Your task to perform on an android device: Go to privacy settings Image 0: 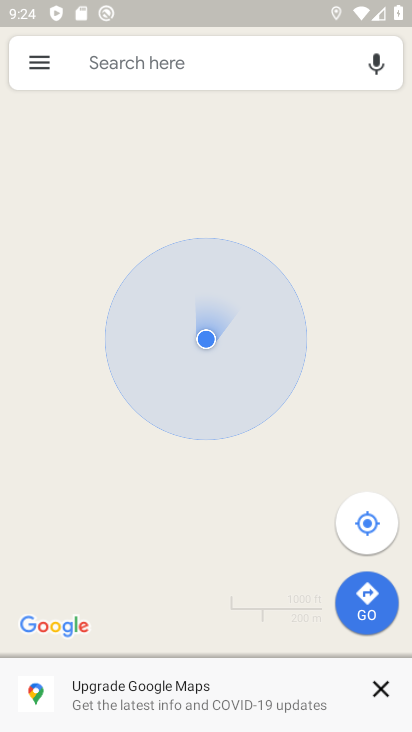
Step 0: press home button
Your task to perform on an android device: Go to privacy settings Image 1: 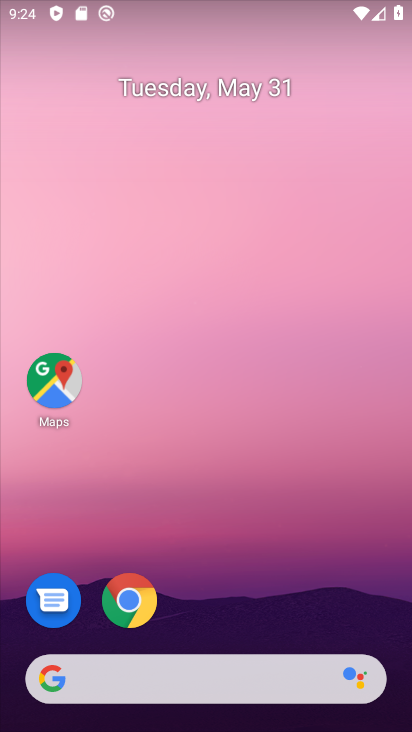
Step 1: drag from (231, 619) to (190, 156)
Your task to perform on an android device: Go to privacy settings Image 2: 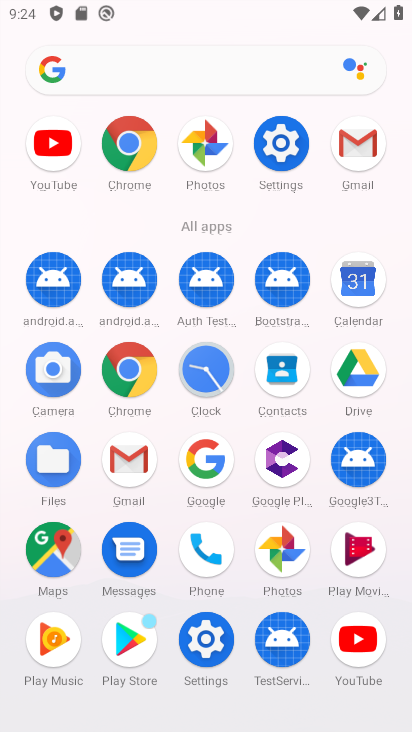
Step 2: click (278, 152)
Your task to perform on an android device: Go to privacy settings Image 3: 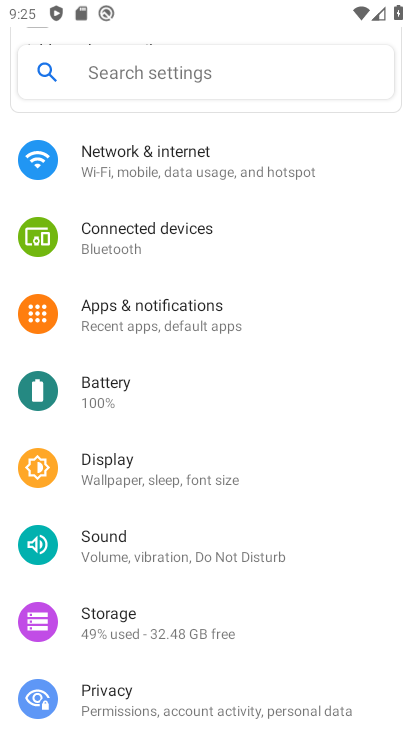
Step 3: click (163, 699)
Your task to perform on an android device: Go to privacy settings Image 4: 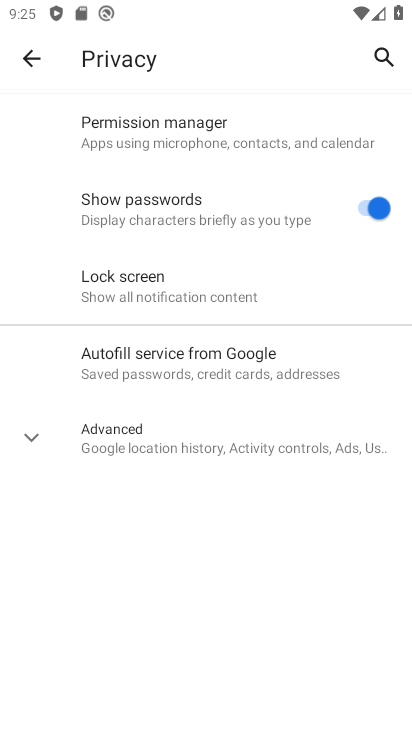
Step 4: task complete